Your task to perform on an android device: clear history in the chrome app Image 0: 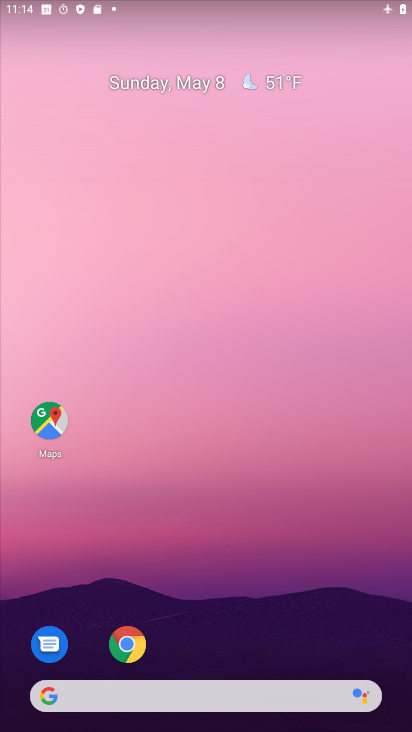
Step 0: drag from (195, 669) to (262, 167)
Your task to perform on an android device: clear history in the chrome app Image 1: 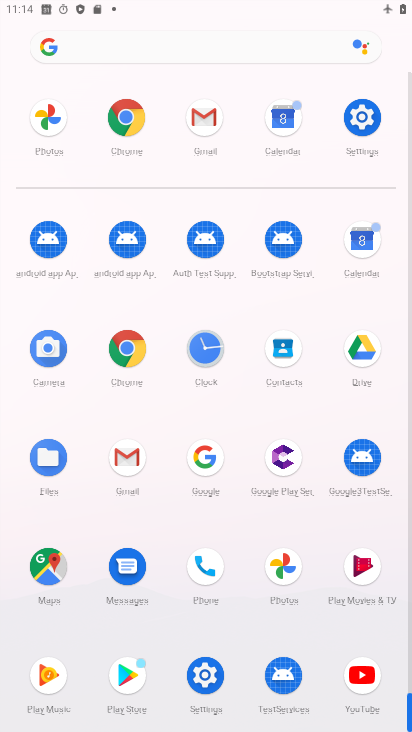
Step 1: click (130, 350)
Your task to perform on an android device: clear history in the chrome app Image 2: 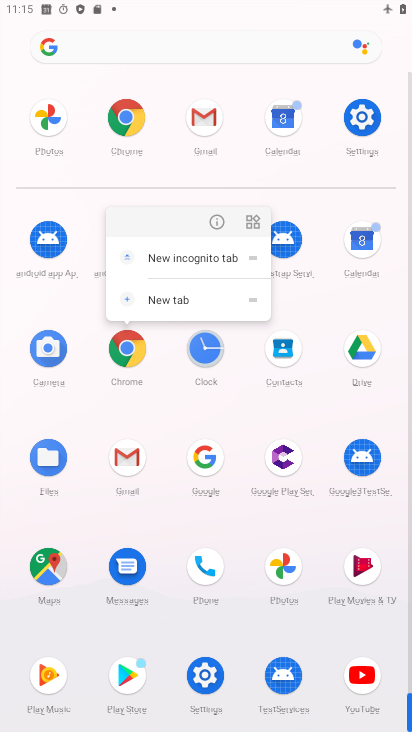
Step 2: click (214, 223)
Your task to perform on an android device: clear history in the chrome app Image 3: 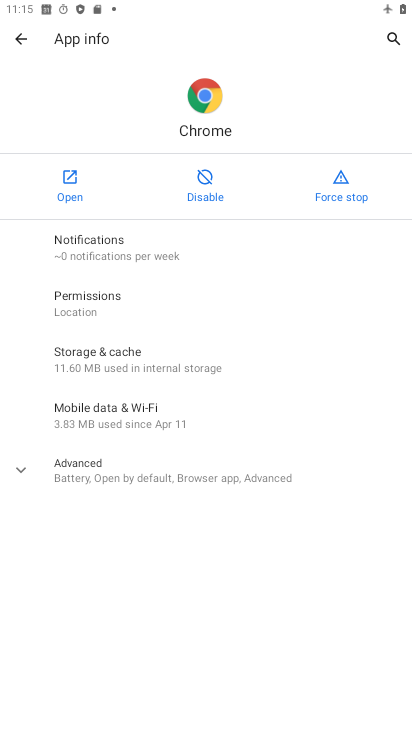
Step 3: click (59, 181)
Your task to perform on an android device: clear history in the chrome app Image 4: 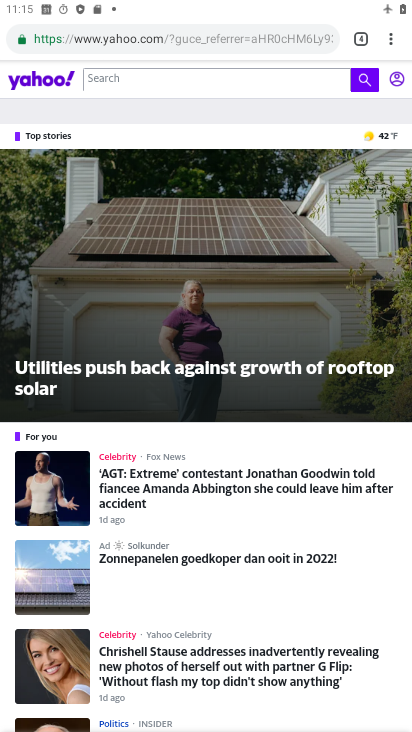
Step 4: drag from (388, 41) to (264, 268)
Your task to perform on an android device: clear history in the chrome app Image 5: 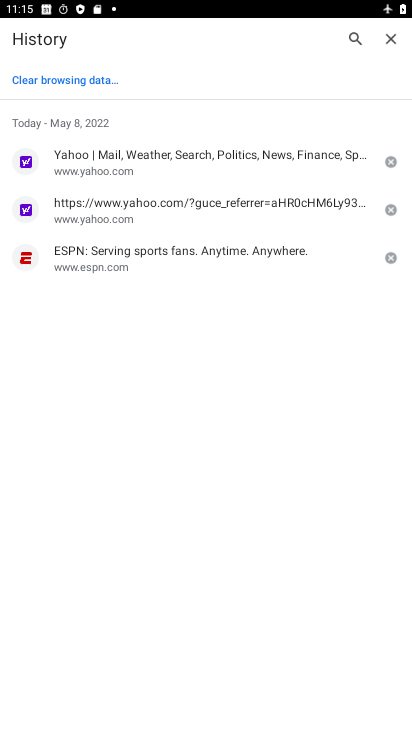
Step 5: click (54, 81)
Your task to perform on an android device: clear history in the chrome app Image 6: 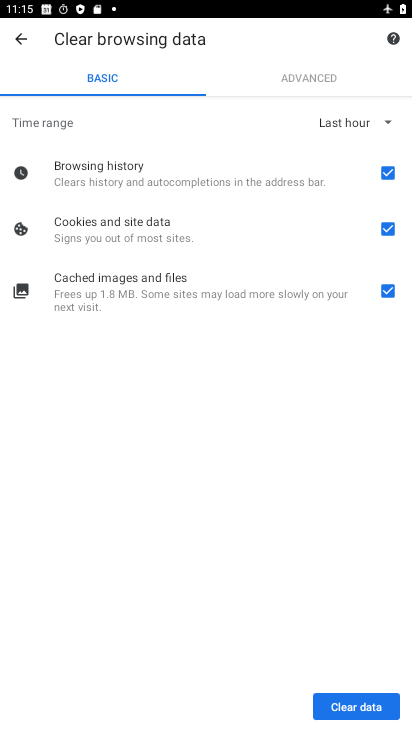
Step 6: click (334, 694)
Your task to perform on an android device: clear history in the chrome app Image 7: 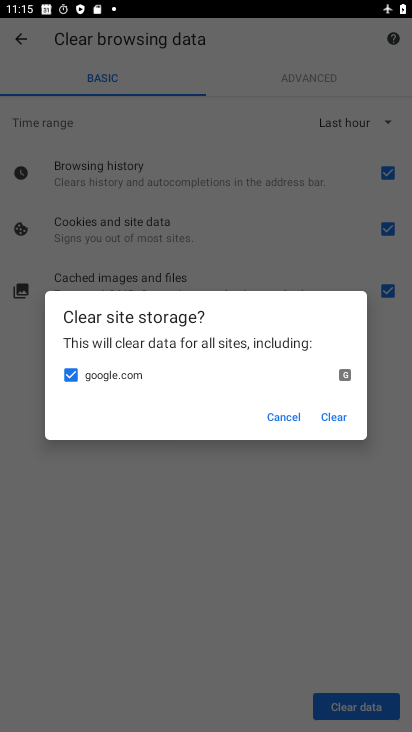
Step 7: click (338, 411)
Your task to perform on an android device: clear history in the chrome app Image 8: 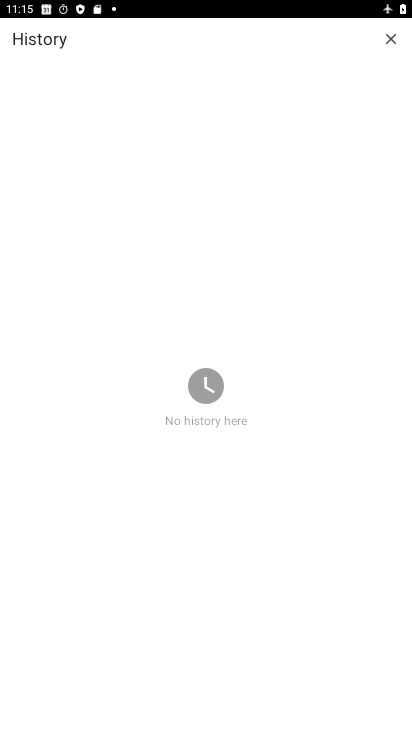
Step 8: click (390, 42)
Your task to perform on an android device: clear history in the chrome app Image 9: 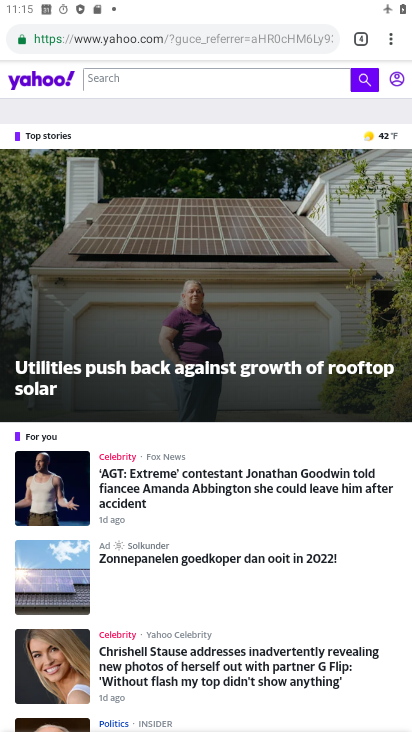
Step 9: task complete